Your task to perform on an android device: Go to sound settings Image 0: 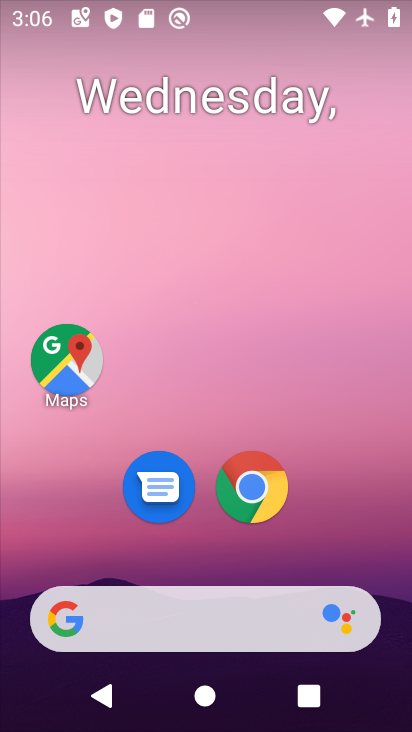
Step 0: drag from (346, 546) to (327, 130)
Your task to perform on an android device: Go to sound settings Image 1: 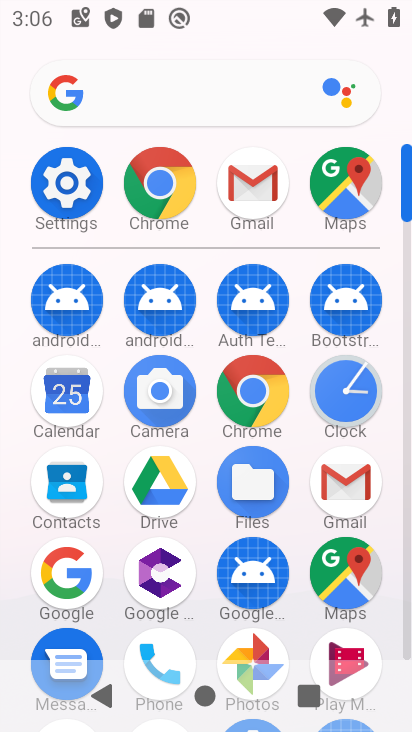
Step 1: click (55, 193)
Your task to perform on an android device: Go to sound settings Image 2: 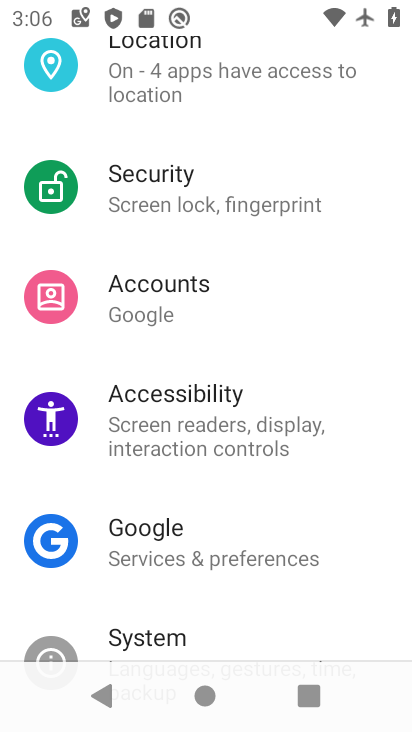
Step 2: drag from (82, 224) to (125, 632)
Your task to perform on an android device: Go to sound settings Image 3: 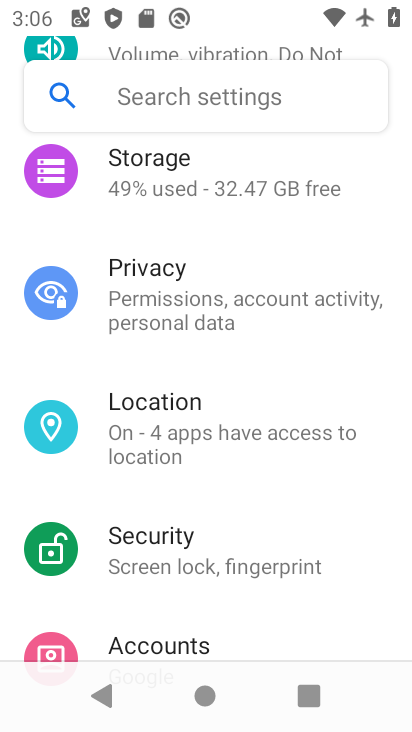
Step 3: drag from (290, 205) to (244, 605)
Your task to perform on an android device: Go to sound settings Image 4: 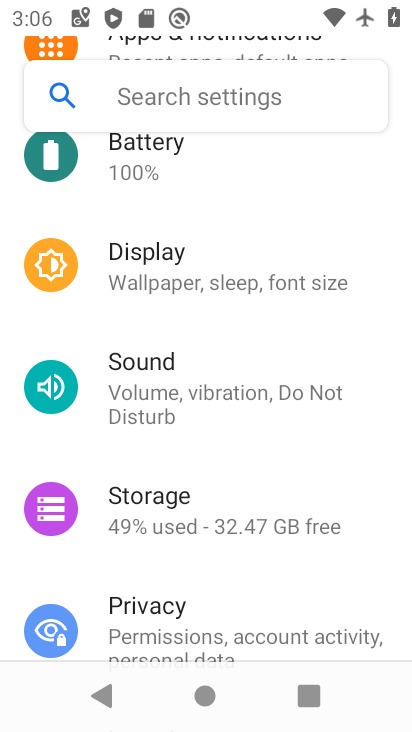
Step 4: click (149, 386)
Your task to perform on an android device: Go to sound settings Image 5: 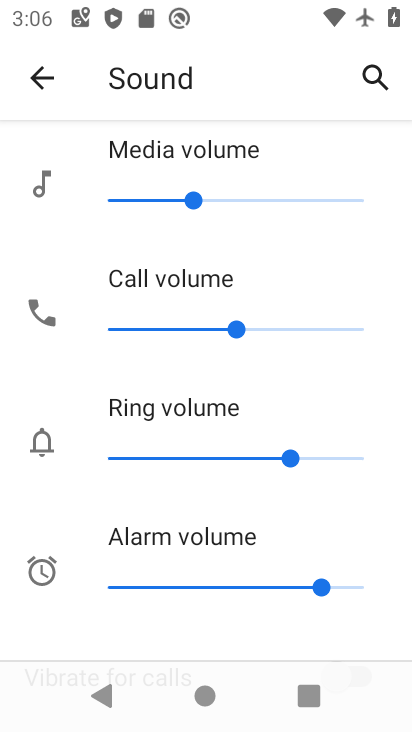
Step 5: task complete